Your task to perform on an android device: Search for dining sets on article.com Image 0: 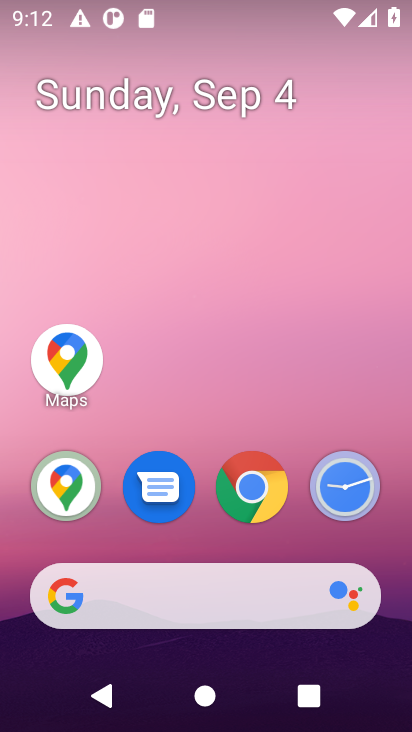
Step 0: click (67, 495)
Your task to perform on an android device: Search for dining sets on article.com Image 1: 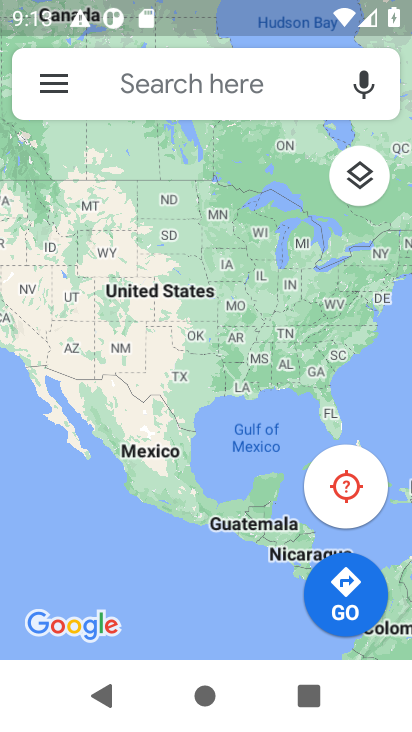
Step 1: task complete